Your task to perform on an android device: change alarm snooze length Image 0: 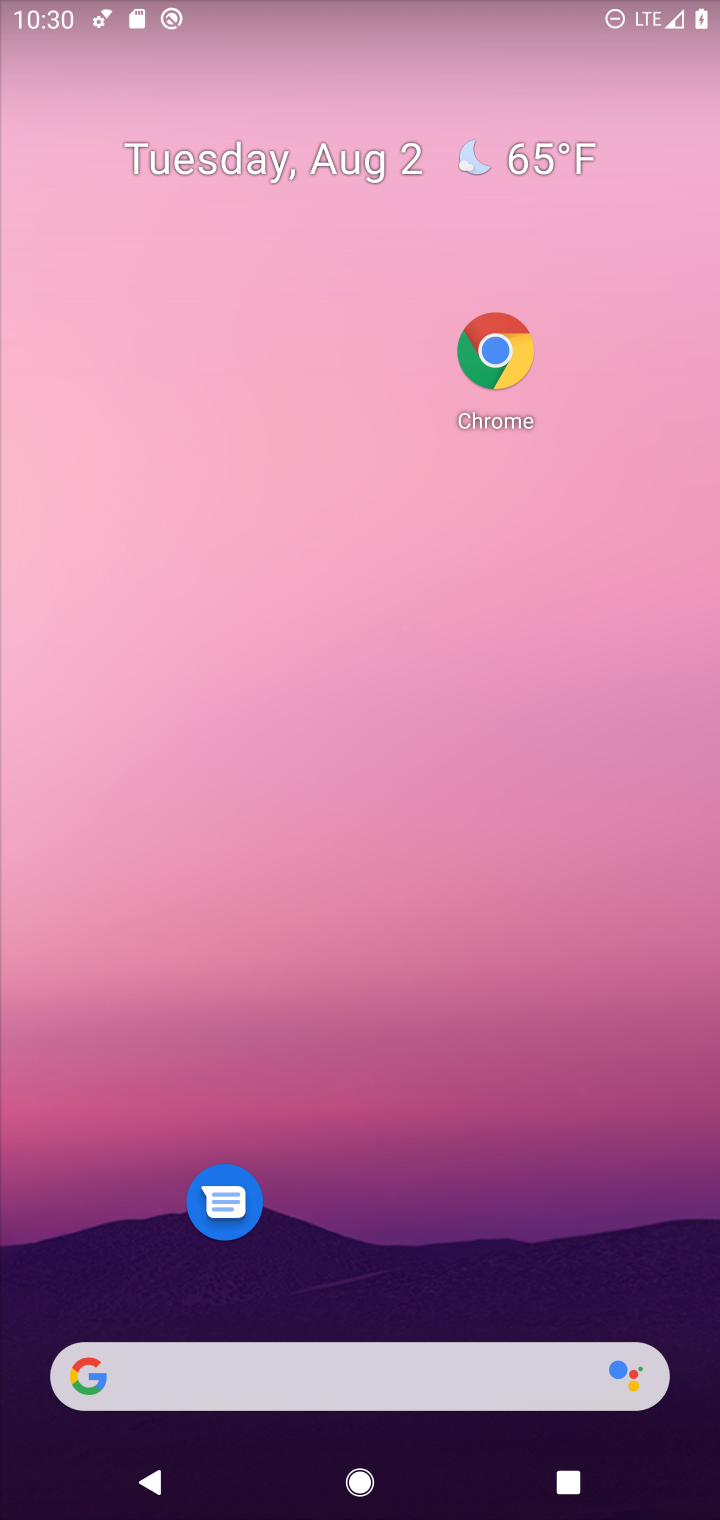
Step 0: drag from (390, 1123) to (374, 92)
Your task to perform on an android device: change alarm snooze length Image 1: 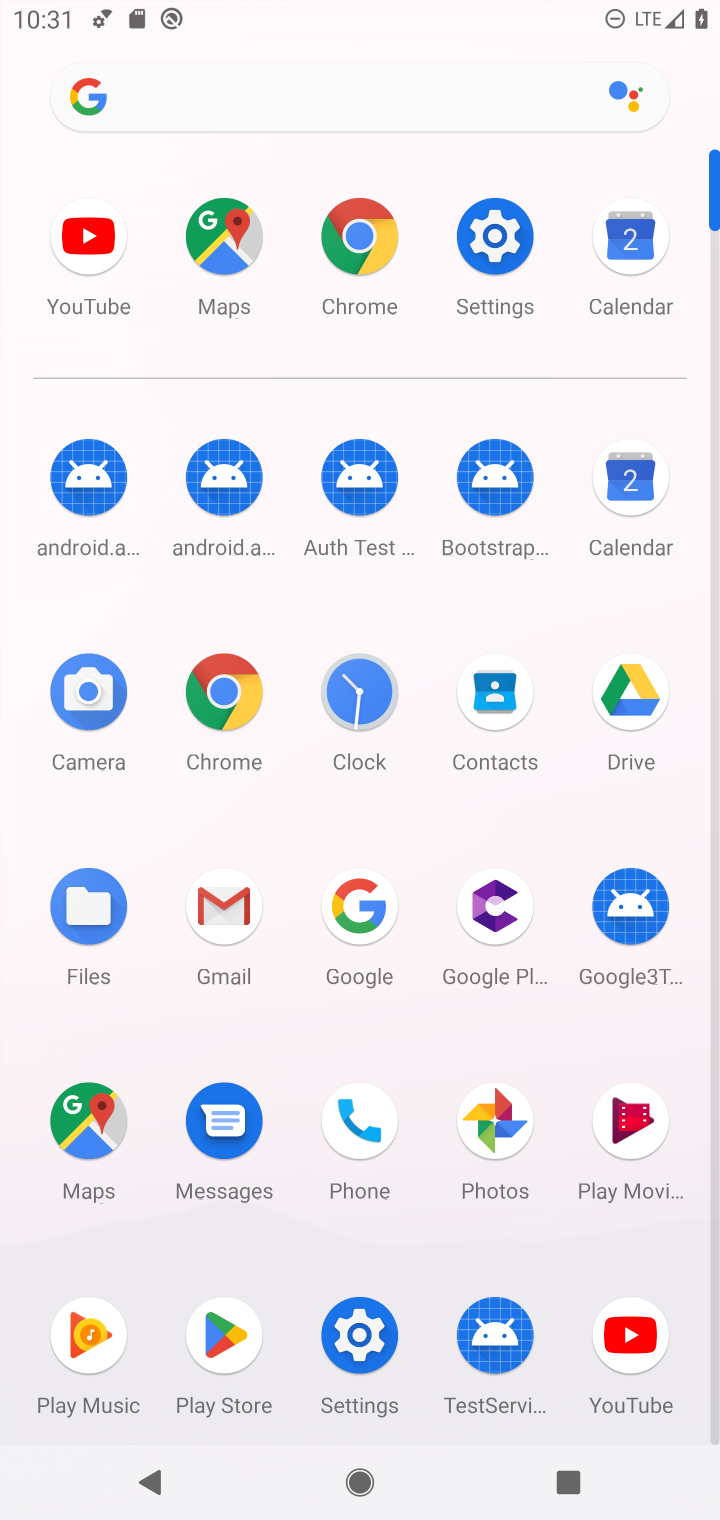
Step 1: click (346, 703)
Your task to perform on an android device: change alarm snooze length Image 2: 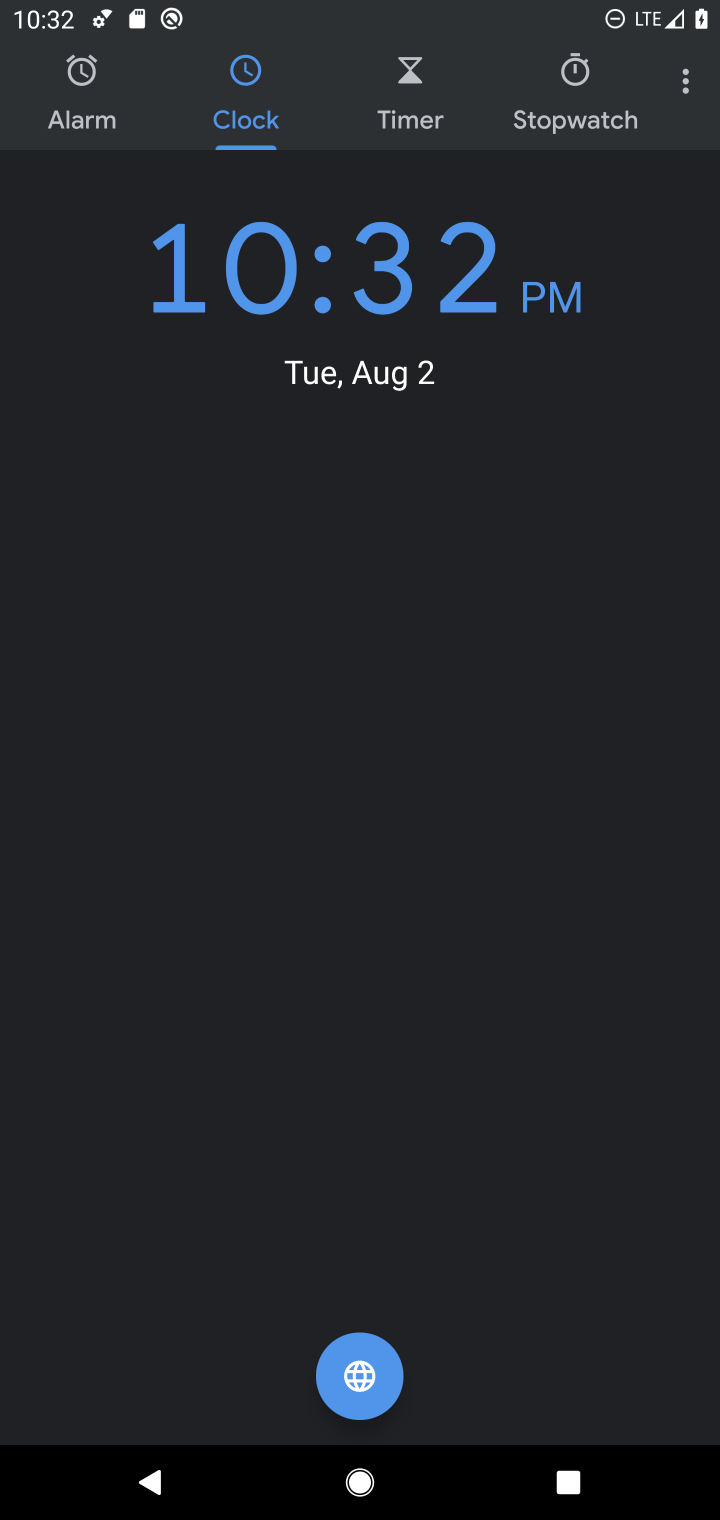
Step 2: click (684, 83)
Your task to perform on an android device: change alarm snooze length Image 3: 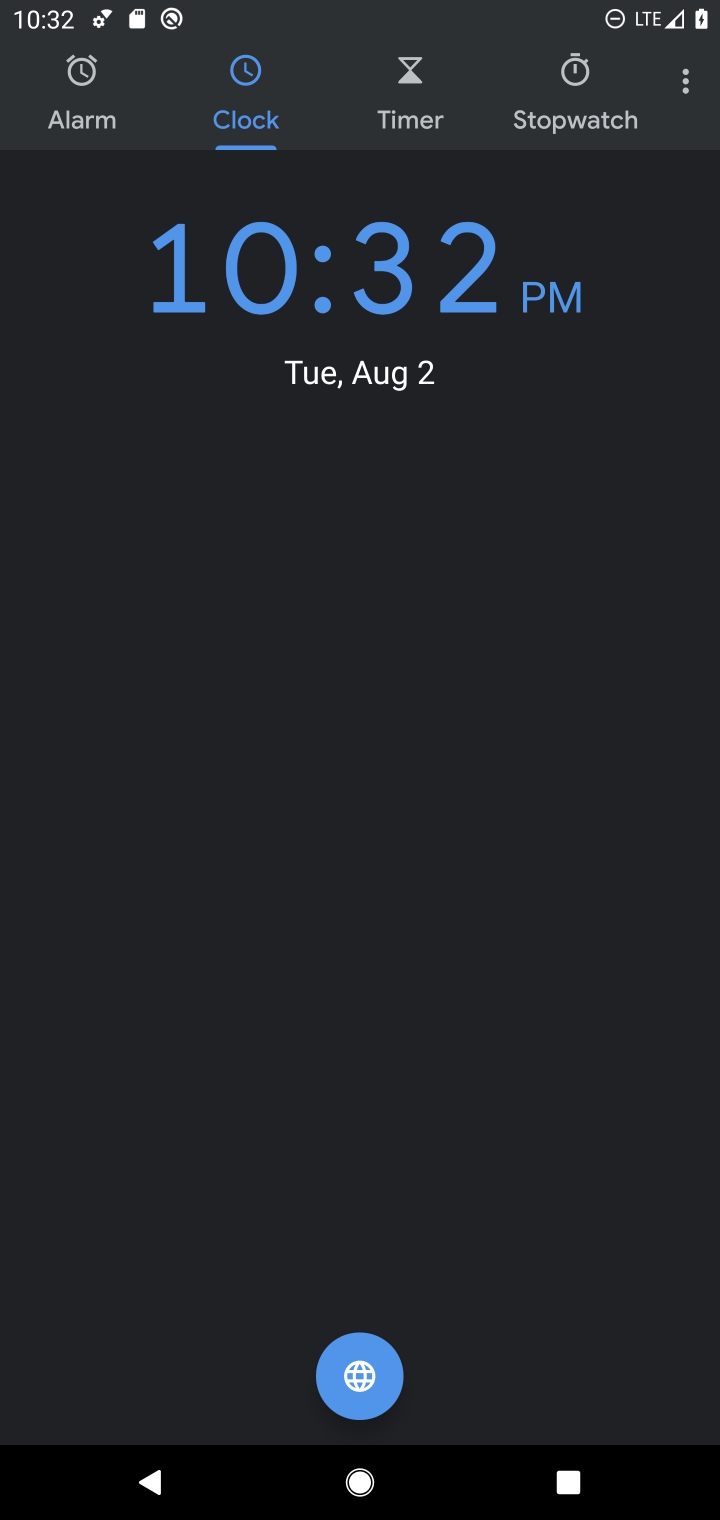
Step 3: click (688, 88)
Your task to perform on an android device: change alarm snooze length Image 4: 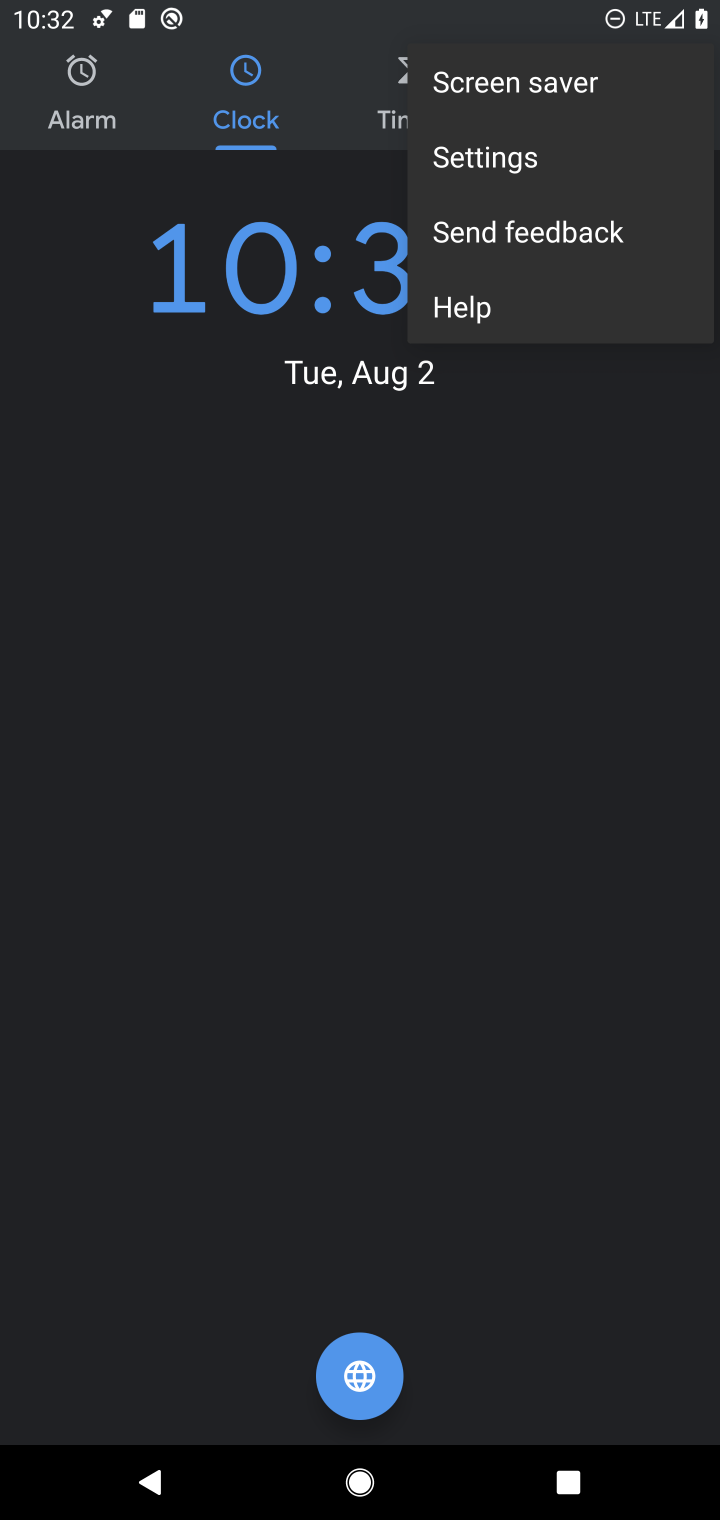
Step 4: click (535, 170)
Your task to perform on an android device: change alarm snooze length Image 5: 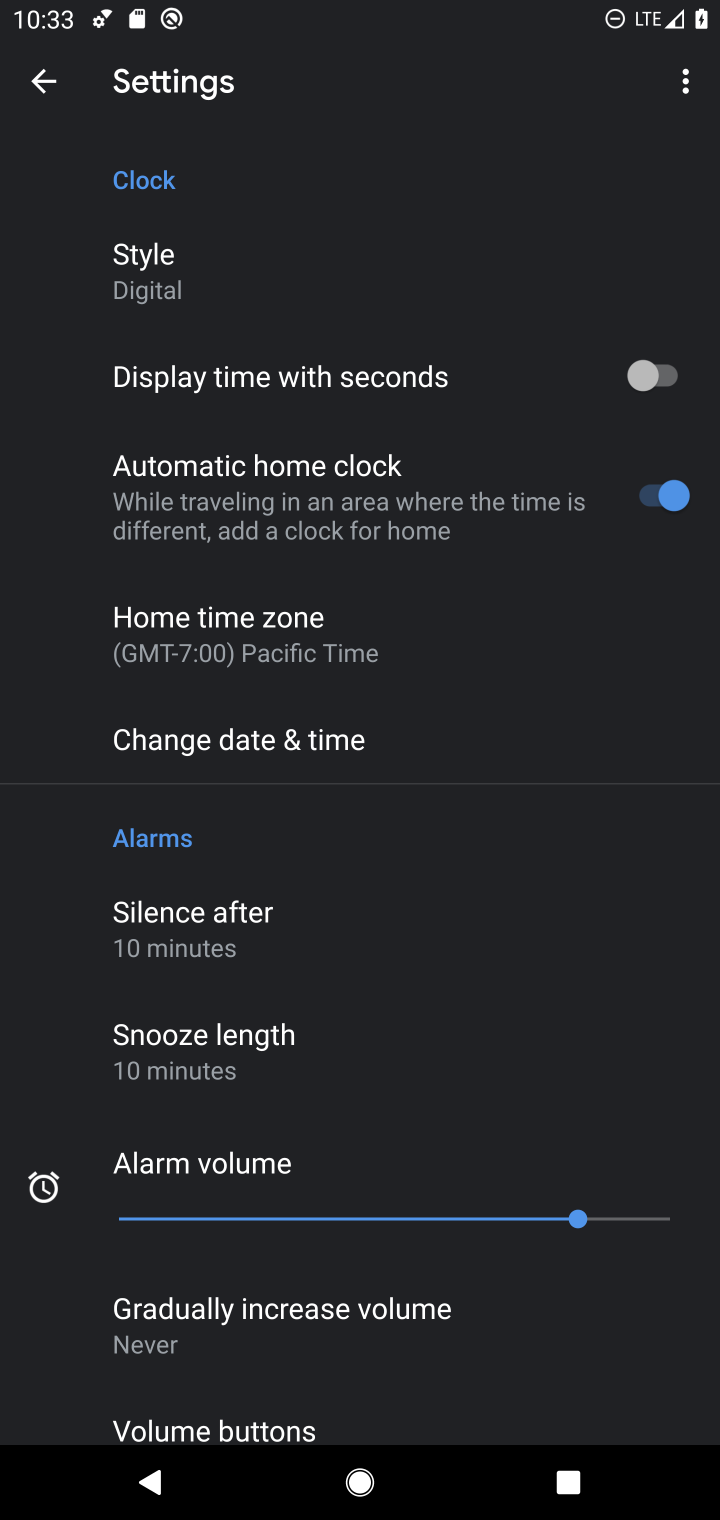
Step 5: click (179, 1053)
Your task to perform on an android device: change alarm snooze length Image 6: 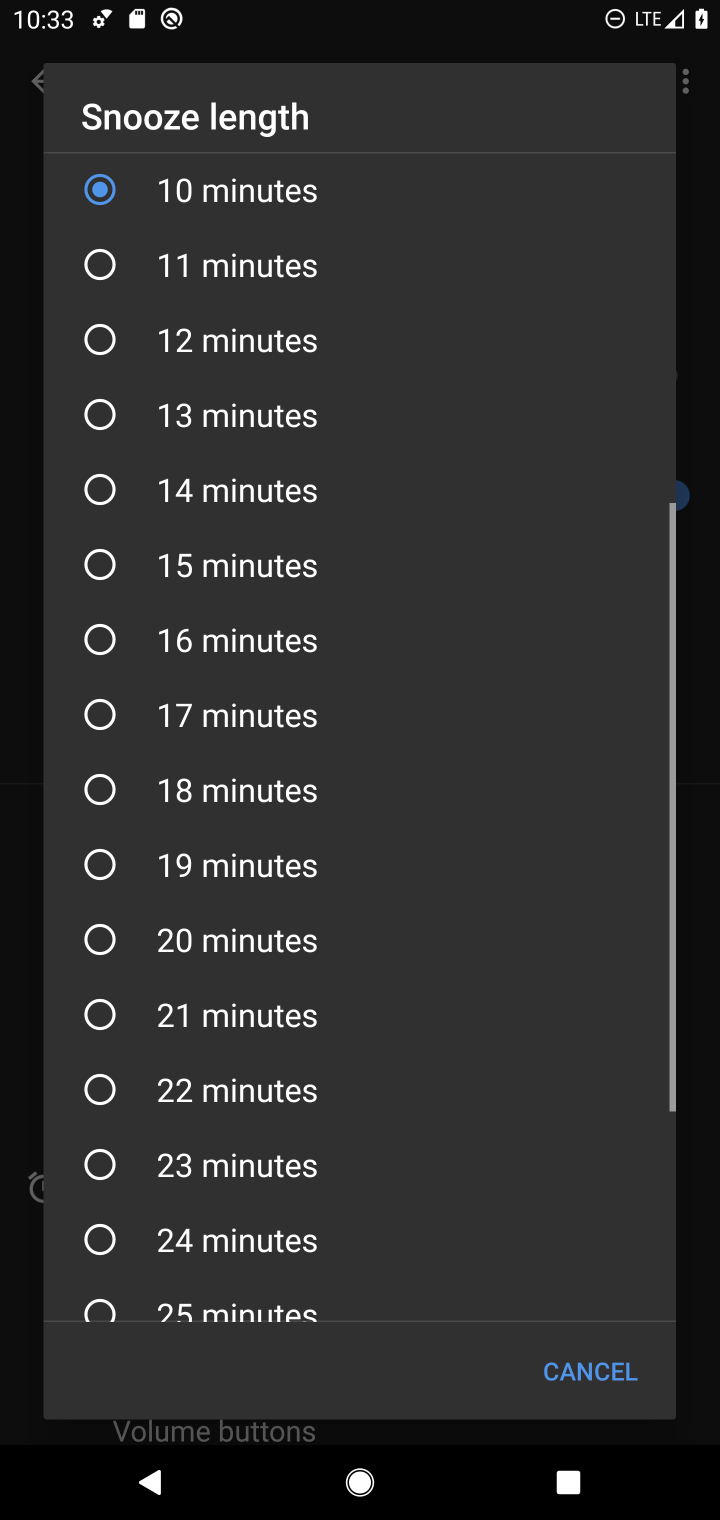
Step 6: click (109, 343)
Your task to perform on an android device: change alarm snooze length Image 7: 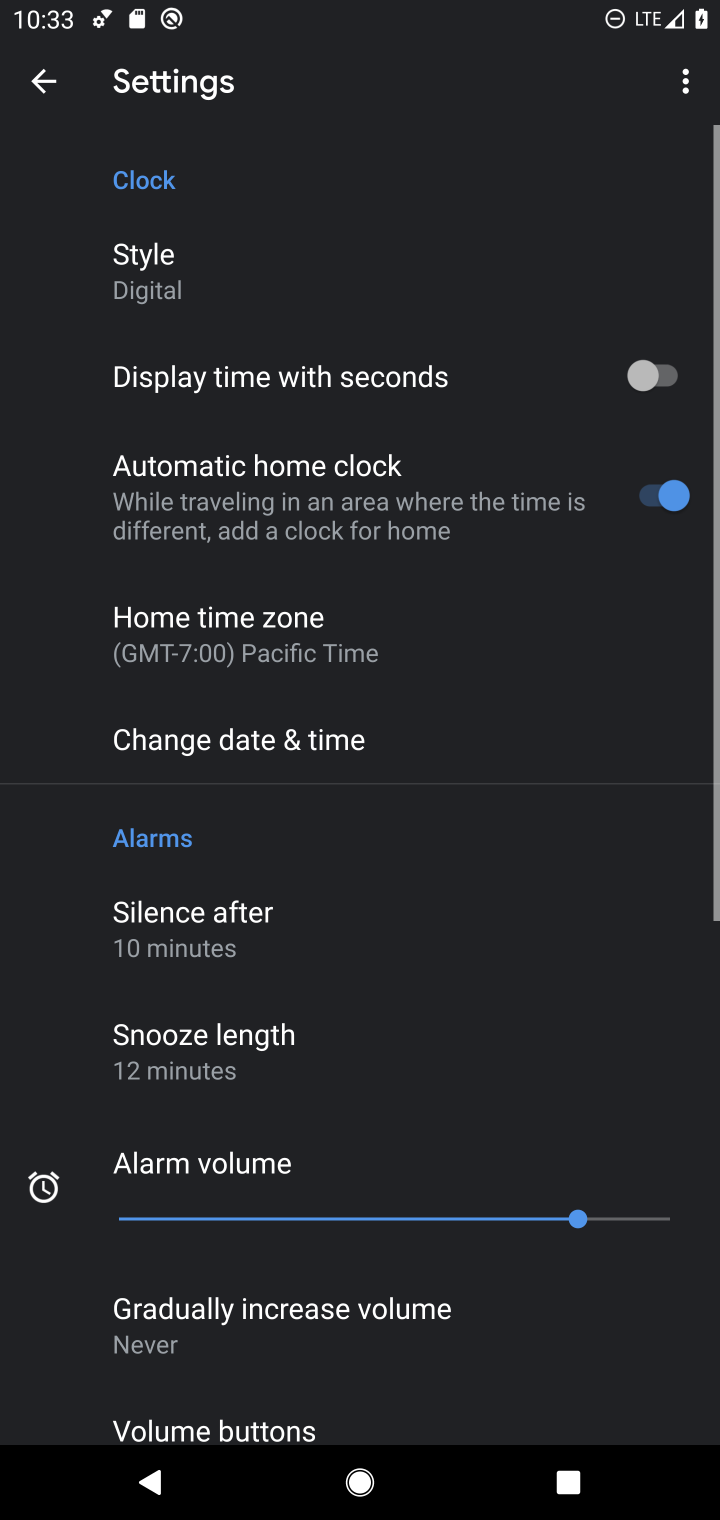
Step 7: task complete